Your task to perform on an android device: open app "Upside-Cash back on gas & food" (install if not already installed) and enter user name: "transatlantic@gmail.com" and password: "experiences" Image 0: 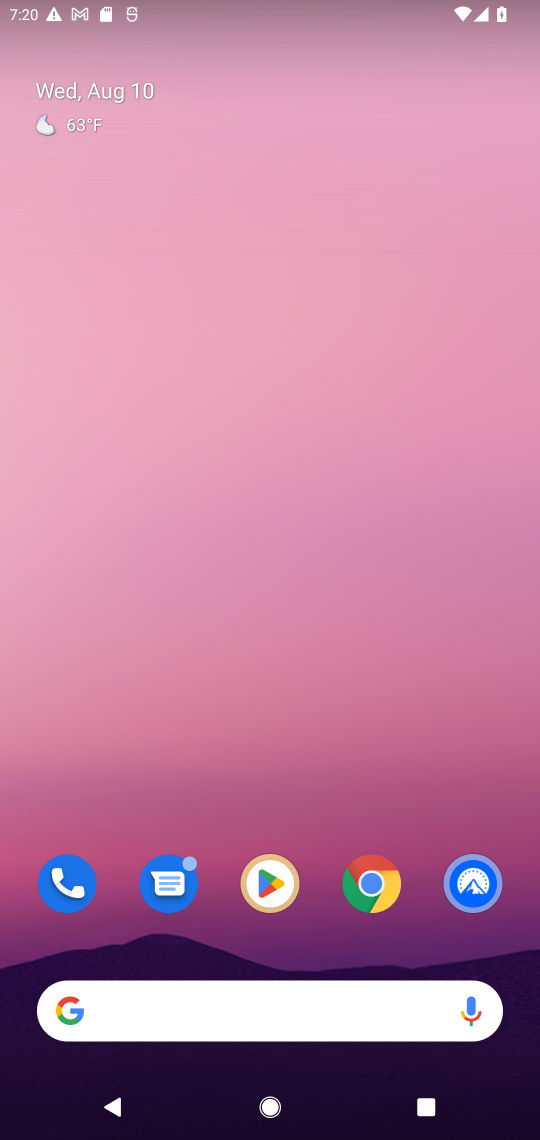
Step 0: click (256, 853)
Your task to perform on an android device: open app "Upside-Cash back on gas & food" (install if not already installed) and enter user name: "transatlantic@gmail.com" and password: "experiences" Image 1: 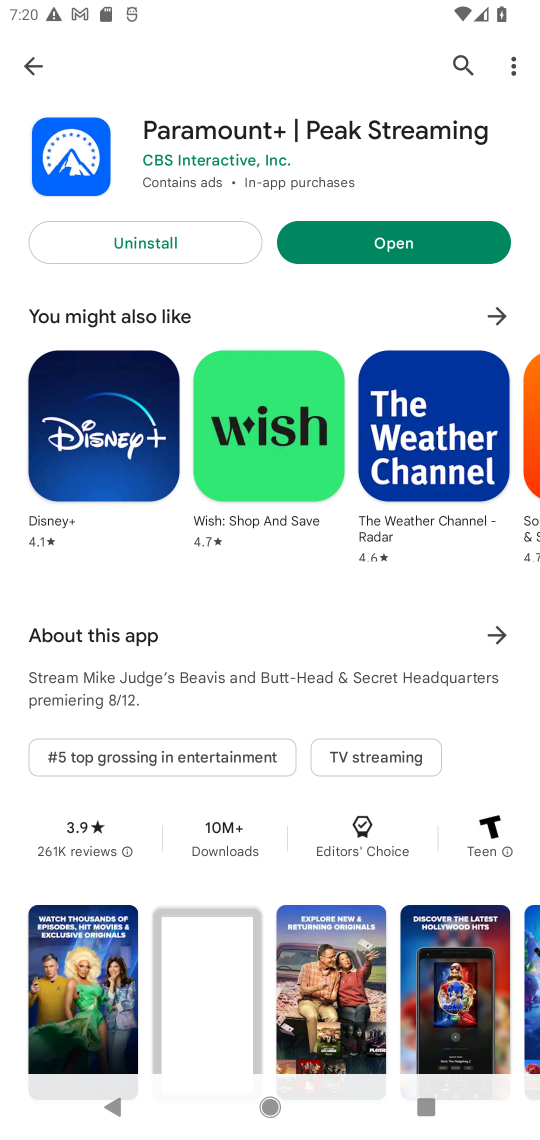
Step 1: click (469, 65)
Your task to perform on an android device: open app "Upside-Cash back on gas & food" (install if not already installed) and enter user name: "transatlantic@gmail.com" and password: "experiences" Image 2: 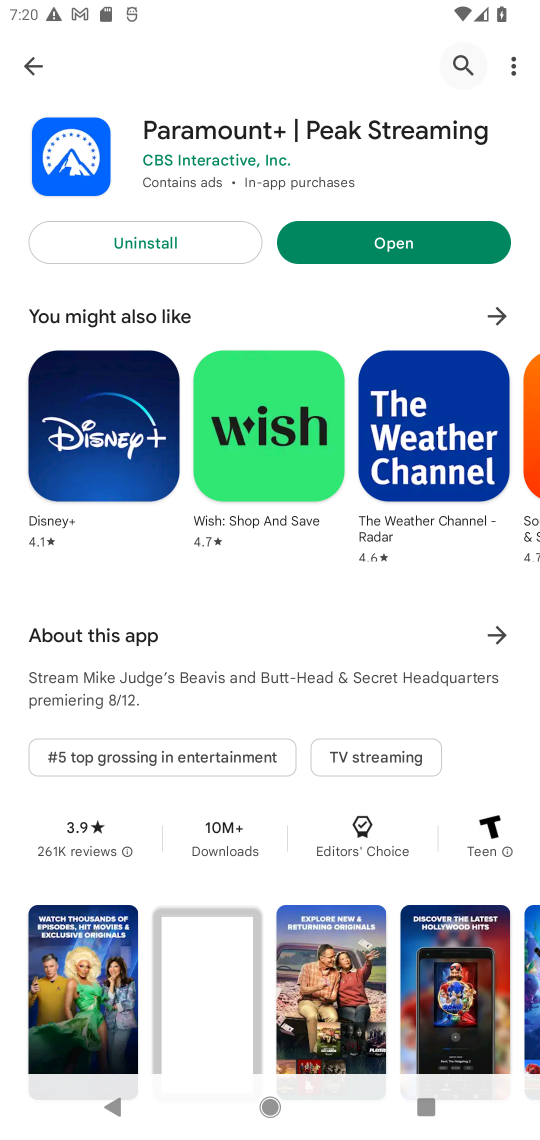
Step 2: click (470, 66)
Your task to perform on an android device: open app "Upside-Cash back on gas & food" (install if not already installed) and enter user name: "transatlantic@gmail.com" and password: "experiences" Image 3: 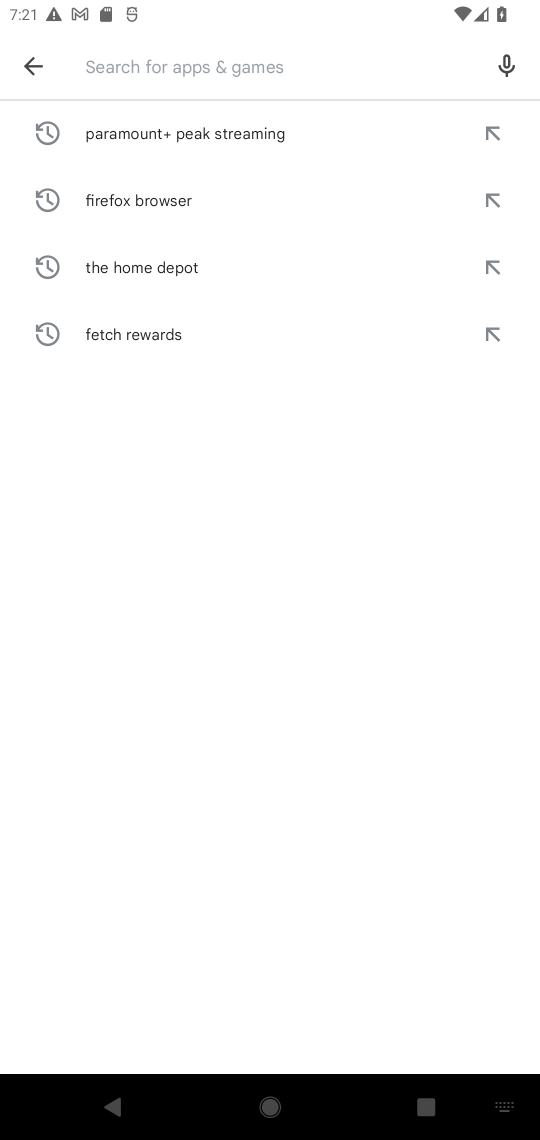
Step 3: type "Upside-Cash back on gas & food"
Your task to perform on an android device: open app "Upside-Cash back on gas & food" (install if not already installed) and enter user name: "transatlantic@gmail.com" and password: "experiences" Image 4: 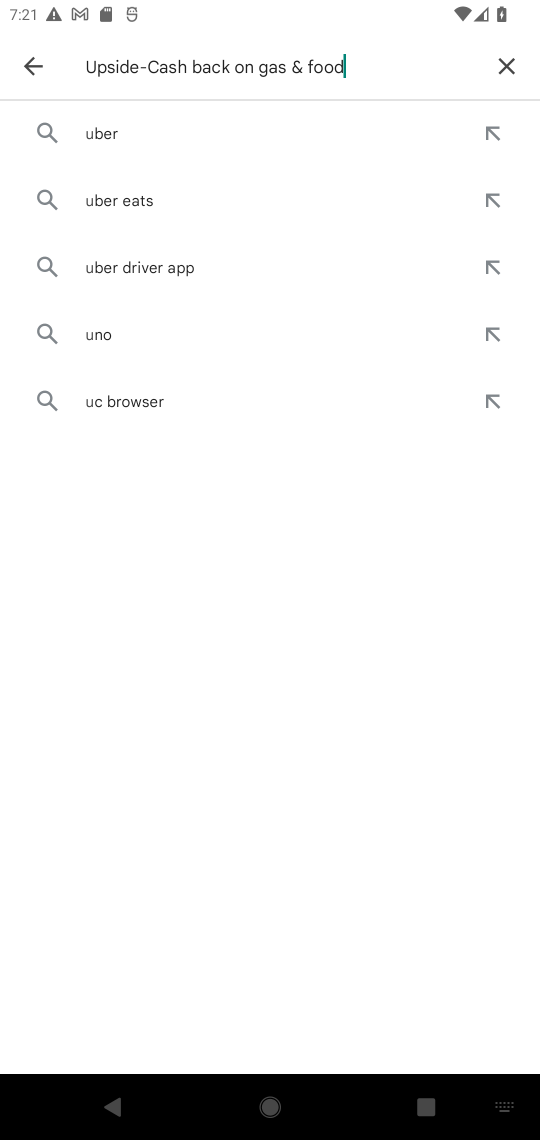
Step 4: type ""
Your task to perform on an android device: open app "Upside-Cash back on gas & food" (install if not already installed) and enter user name: "transatlantic@gmail.com" and password: "experiences" Image 5: 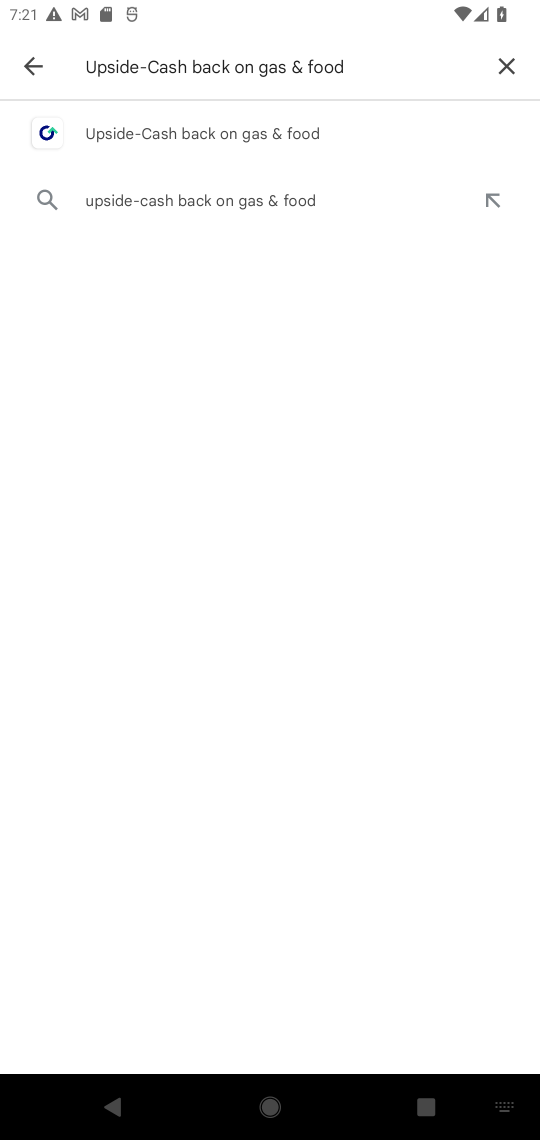
Step 5: click (220, 118)
Your task to perform on an android device: open app "Upside-Cash back on gas & food" (install if not already installed) and enter user name: "transatlantic@gmail.com" and password: "experiences" Image 6: 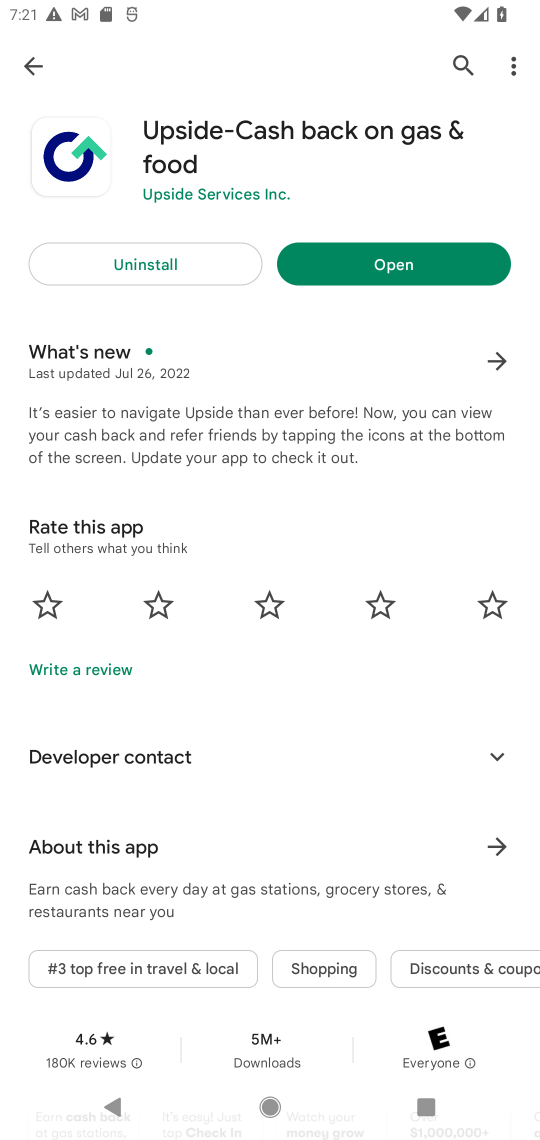
Step 6: click (346, 261)
Your task to perform on an android device: open app "Upside-Cash back on gas & food" (install if not already installed) and enter user name: "transatlantic@gmail.com" and password: "experiences" Image 7: 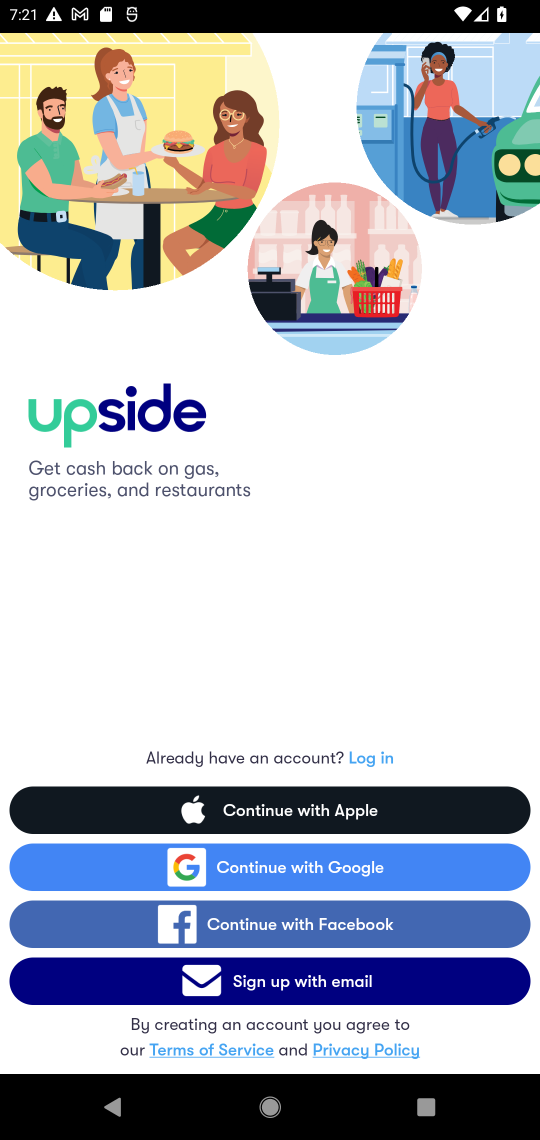
Step 7: task complete